Your task to perform on an android device: Go to network settings Image 0: 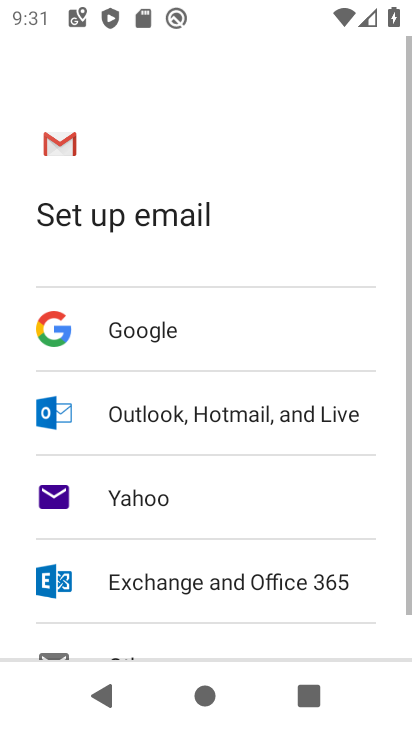
Step 0: press home button
Your task to perform on an android device: Go to network settings Image 1: 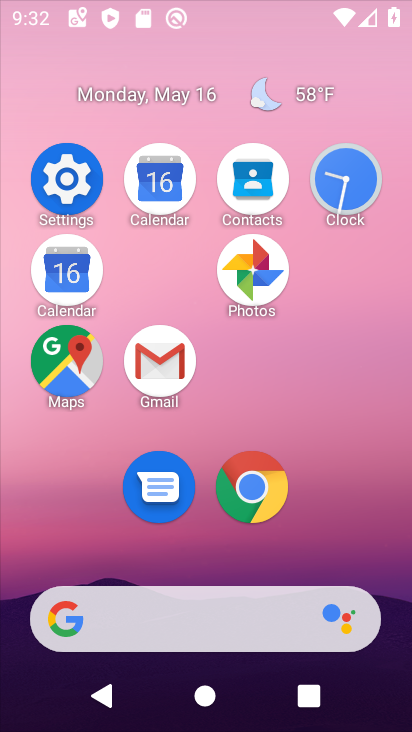
Step 1: click (100, 174)
Your task to perform on an android device: Go to network settings Image 2: 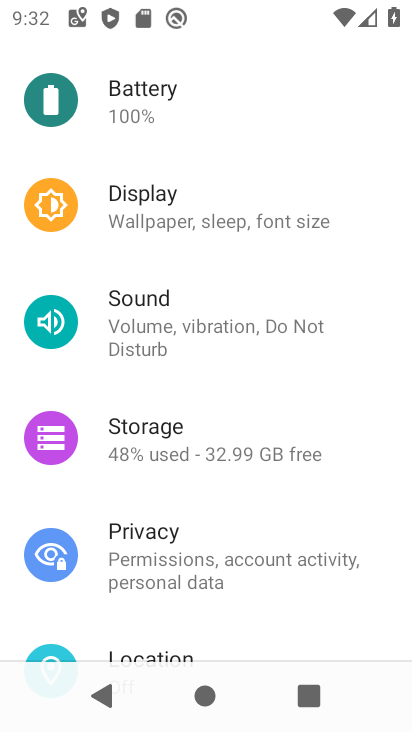
Step 2: drag from (249, 166) to (273, 539)
Your task to perform on an android device: Go to network settings Image 3: 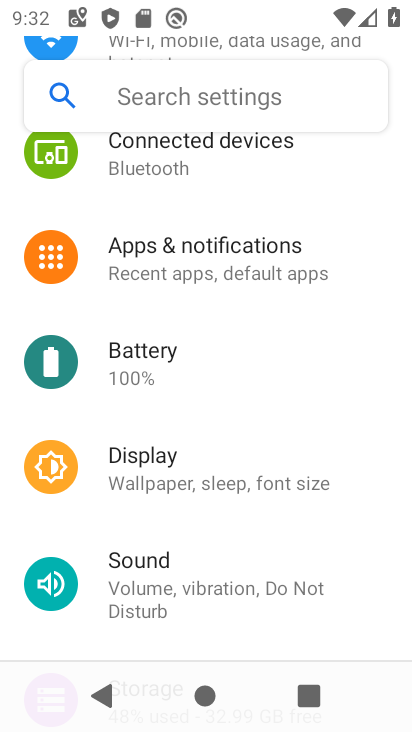
Step 3: drag from (255, 181) to (286, 515)
Your task to perform on an android device: Go to network settings Image 4: 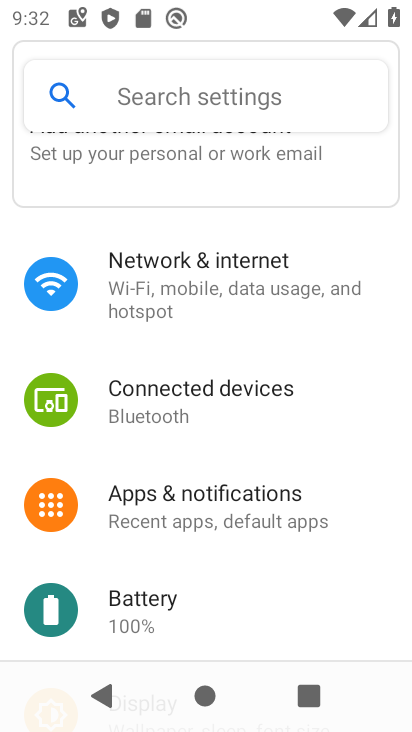
Step 4: click (265, 281)
Your task to perform on an android device: Go to network settings Image 5: 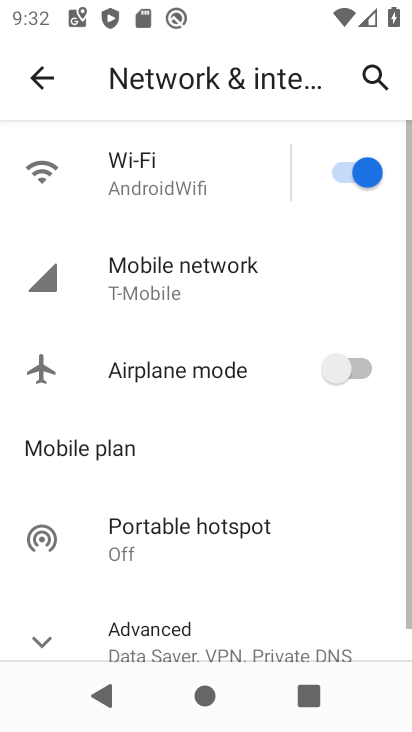
Step 5: click (264, 281)
Your task to perform on an android device: Go to network settings Image 6: 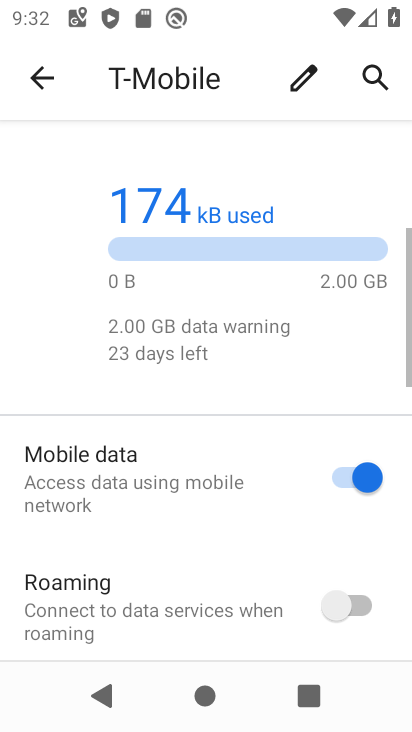
Step 6: task complete